Your task to perform on an android device: toggle pop-ups in chrome Image 0: 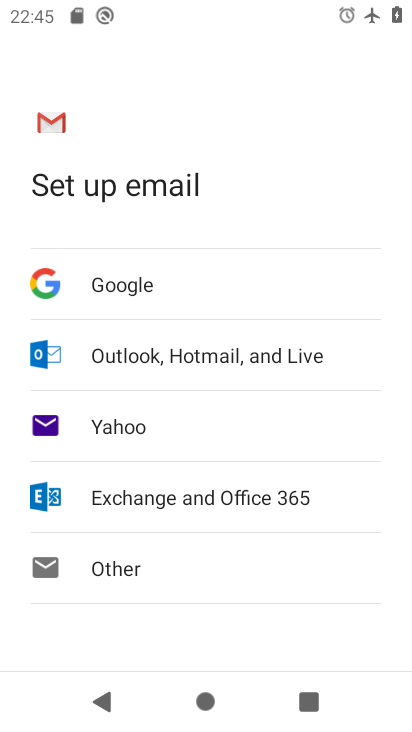
Step 0: press home button
Your task to perform on an android device: toggle pop-ups in chrome Image 1: 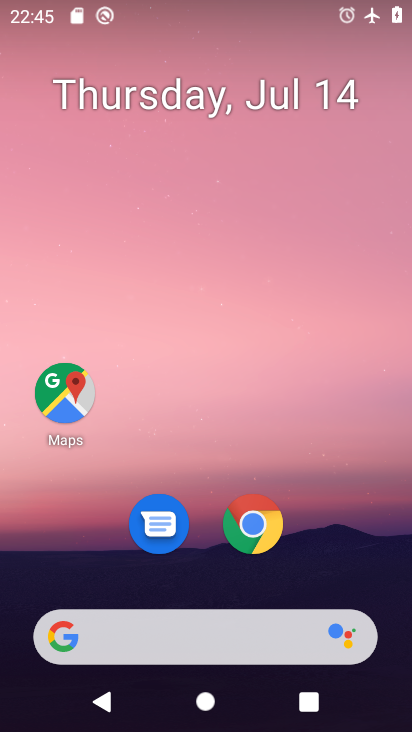
Step 1: click (261, 526)
Your task to perform on an android device: toggle pop-ups in chrome Image 2: 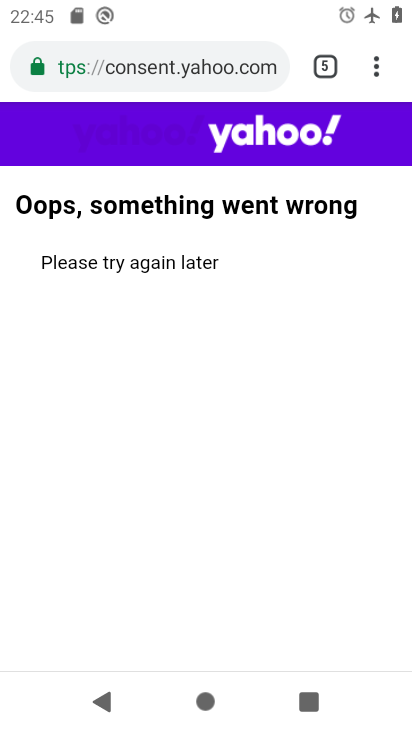
Step 2: click (375, 74)
Your task to perform on an android device: toggle pop-ups in chrome Image 3: 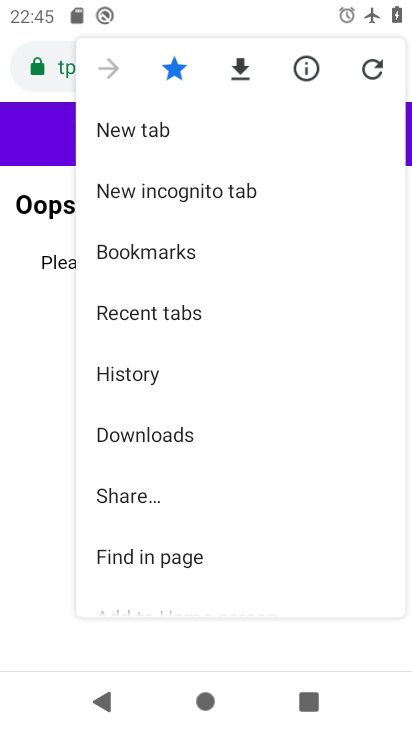
Step 3: drag from (278, 504) to (280, 212)
Your task to perform on an android device: toggle pop-ups in chrome Image 4: 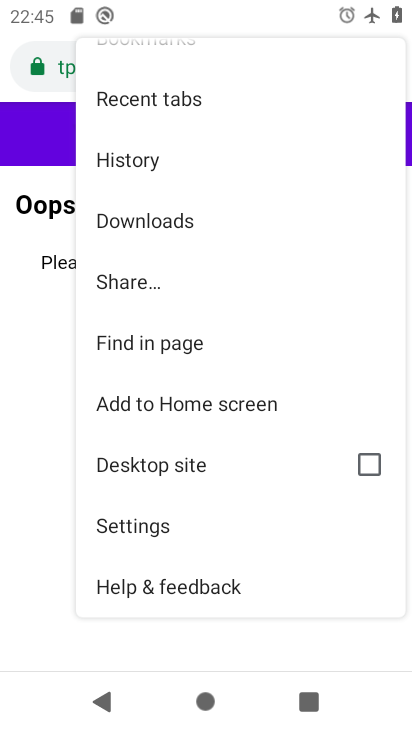
Step 4: click (164, 521)
Your task to perform on an android device: toggle pop-ups in chrome Image 5: 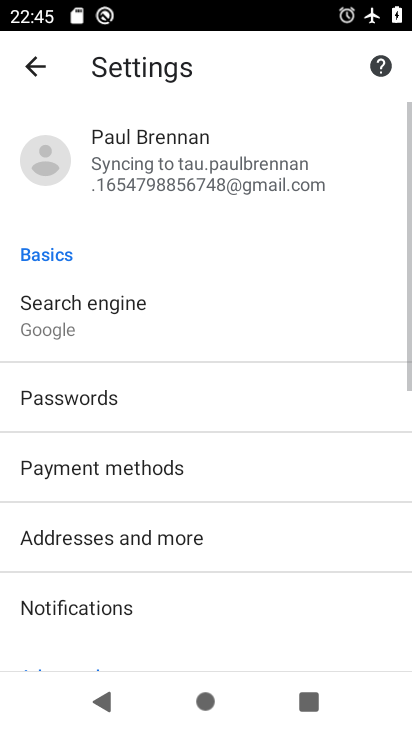
Step 5: drag from (253, 513) to (276, 180)
Your task to perform on an android device: toggle pop-ups in chrome Image 6: 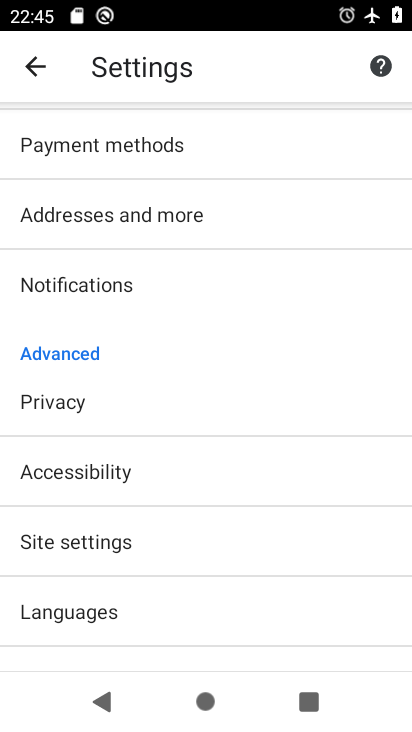
Step 6: click (123, 538)
Your task to perform on an android device: toggle pop-ups in chrome Image 7: 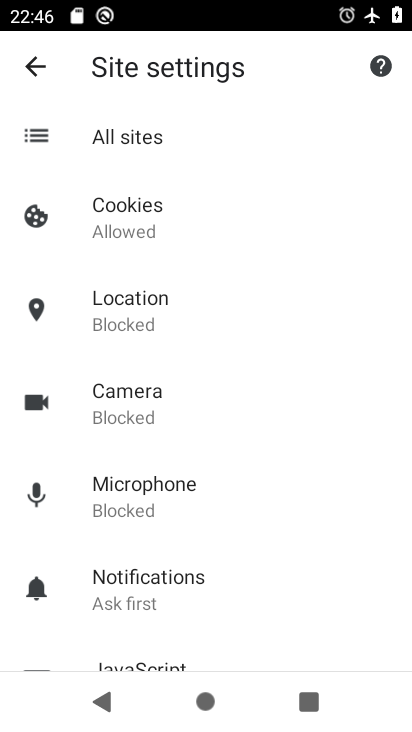
Step 7: drag from (249, 532) to (254, 299)
Your task to perform on an android device: toggle pop-ups in chrome Image 8: 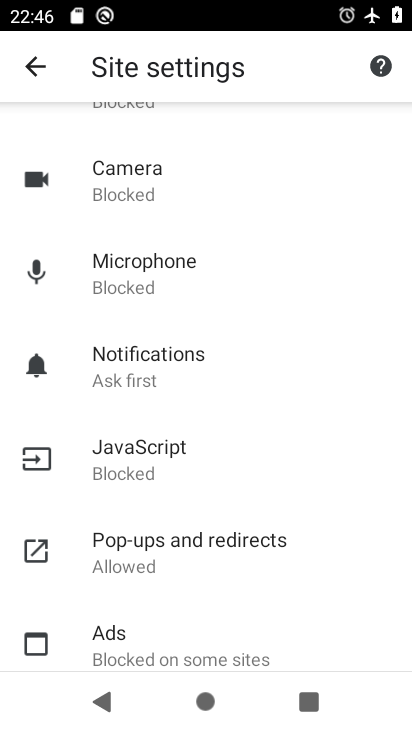
Step 8: click (219, 537)
Your task to perform on an android device: toggle pop-ups in chrome Image 9: 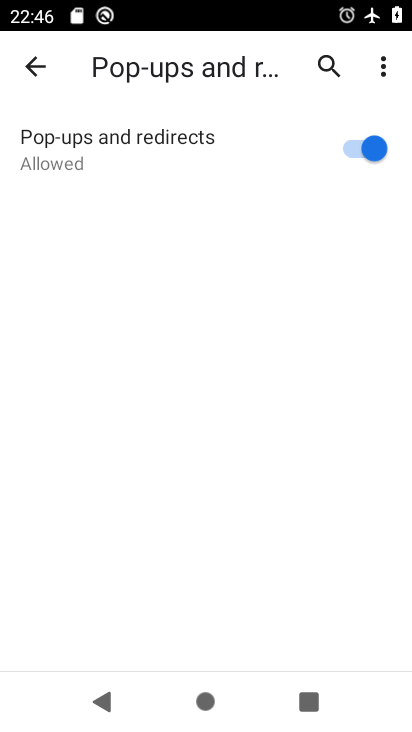
Step 9: click (361, 145)
Your task to perform on an android device: toggle pop-ups in chrome Image 10: 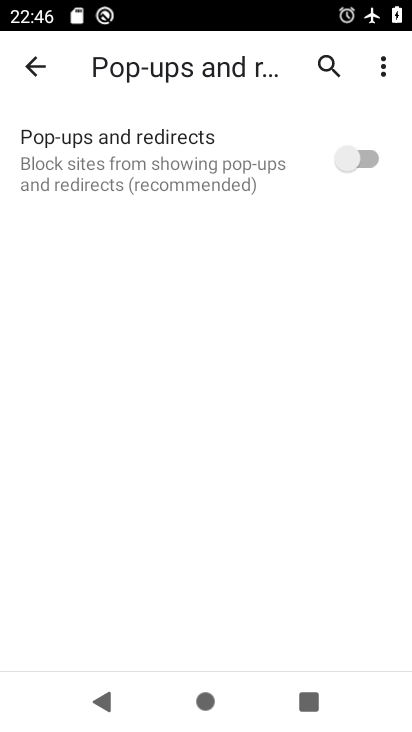
Step 10: task complete